Your task to perform on an android device: Find coffee shops on Maps Image 0: 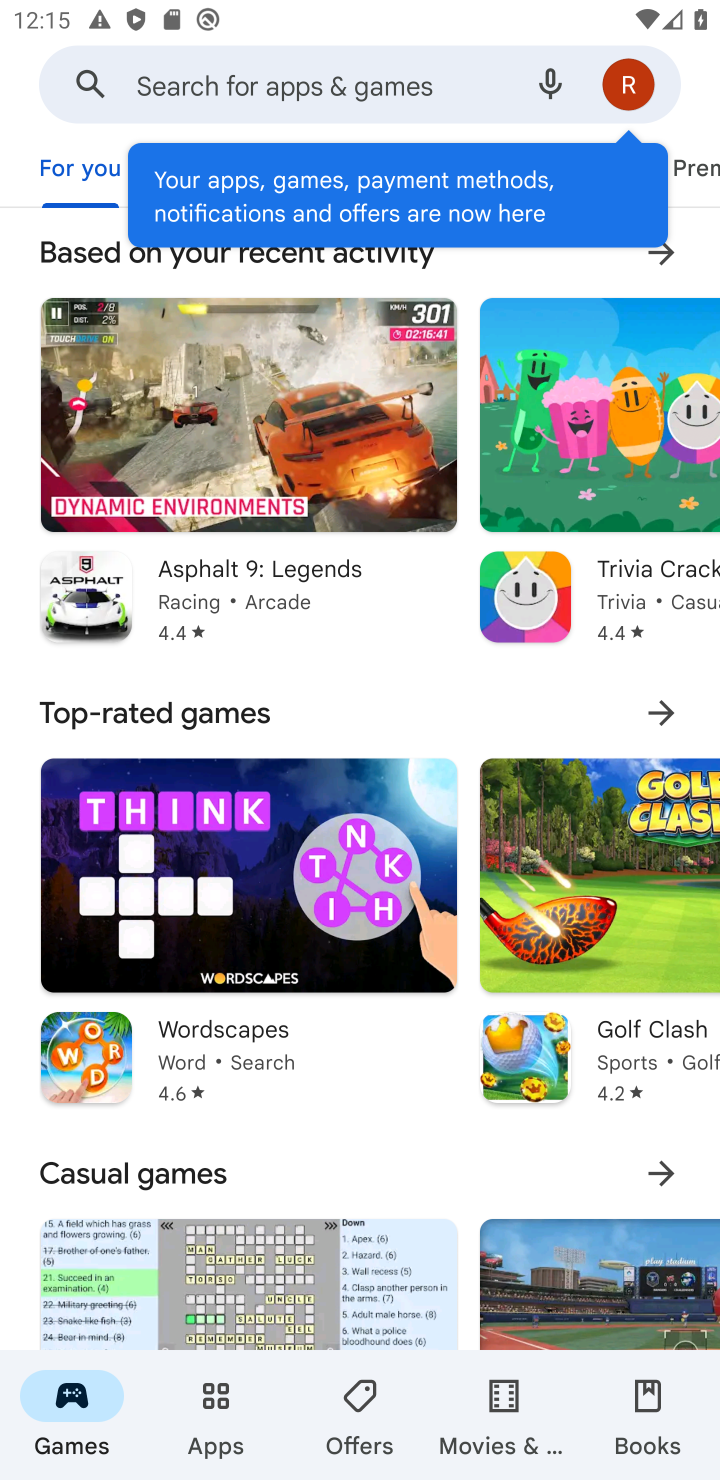
Step 0: press home button
Your task to perform on an android device: Find coffee shops on Maps Image 1: 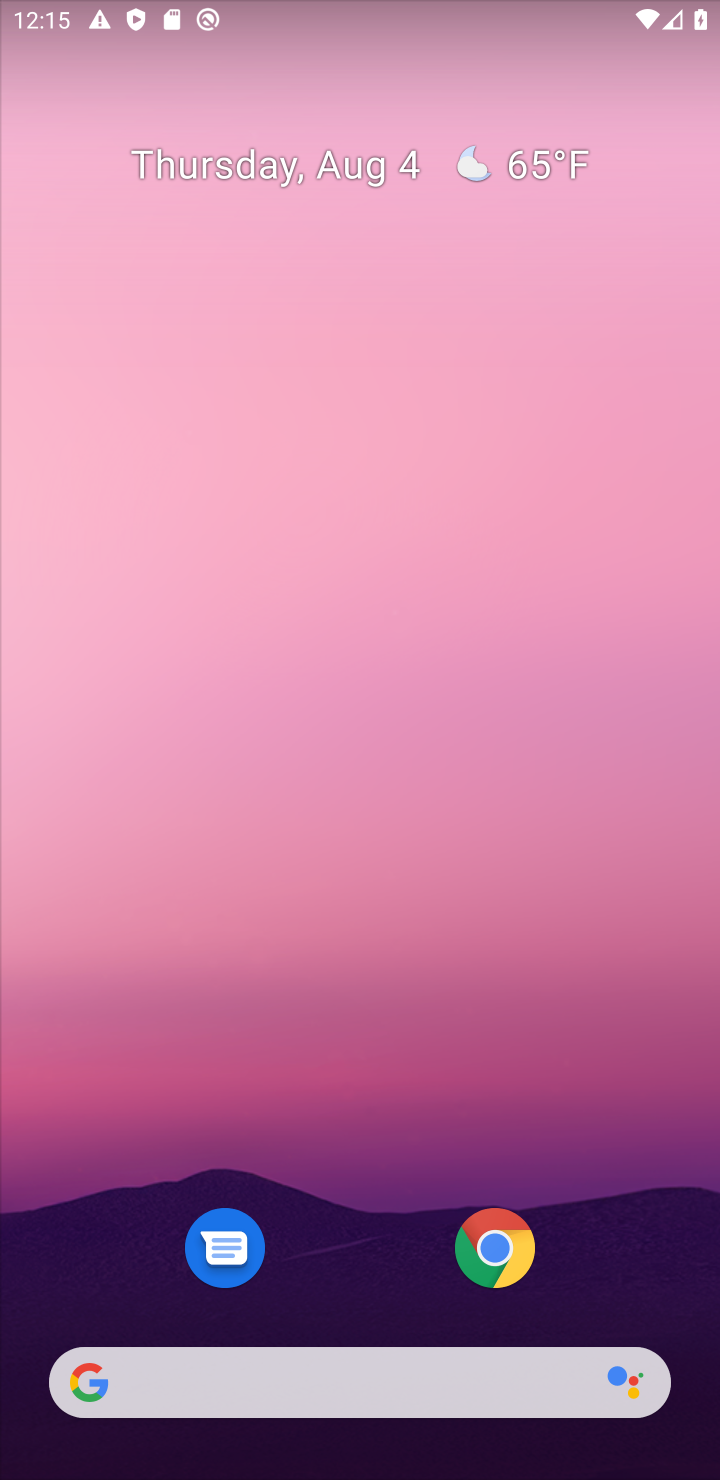
Step 1: drag from (356, 949) to (397, 34)
Your task to perform on an android device: Find coffee shops on Maps Image 2: 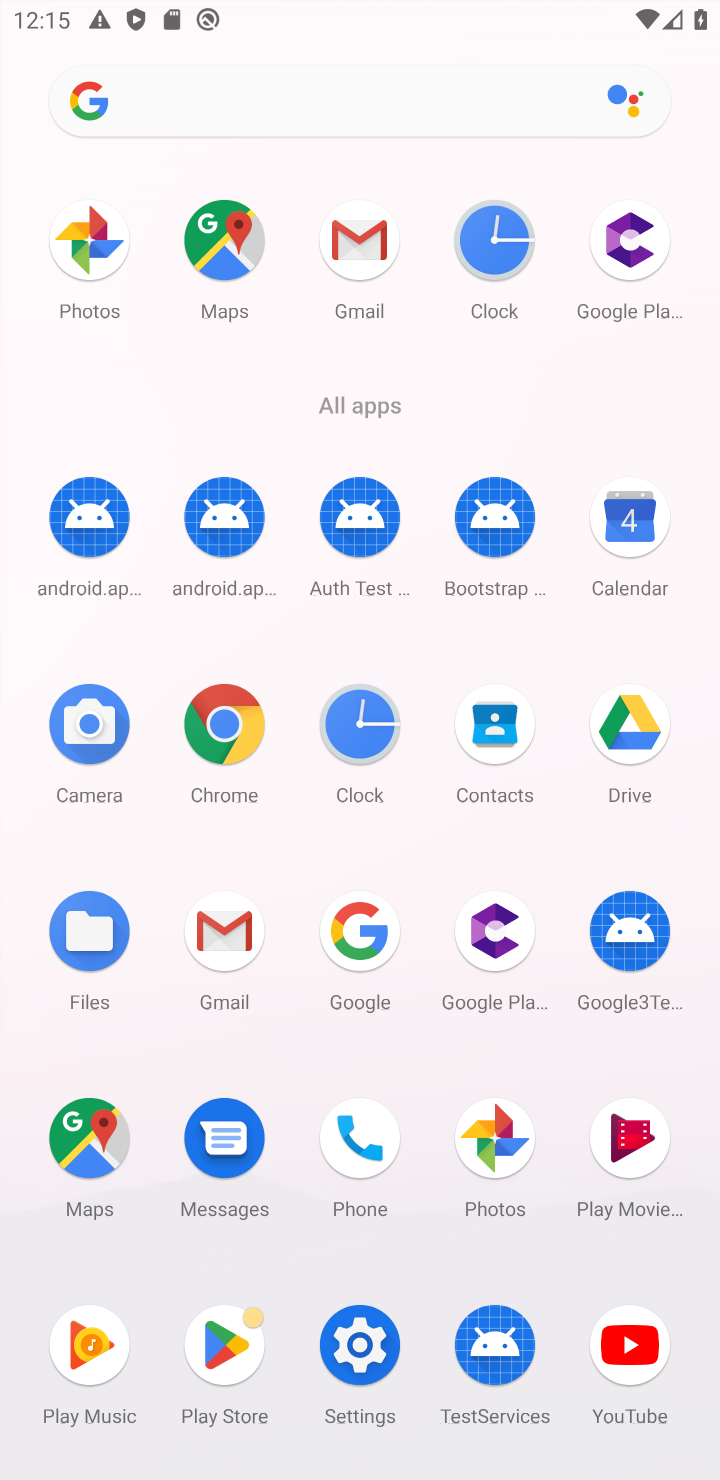
Step 2: click (86, 1130)
Your task to perform on an android device: Find coffee shops on Maps Image 3: 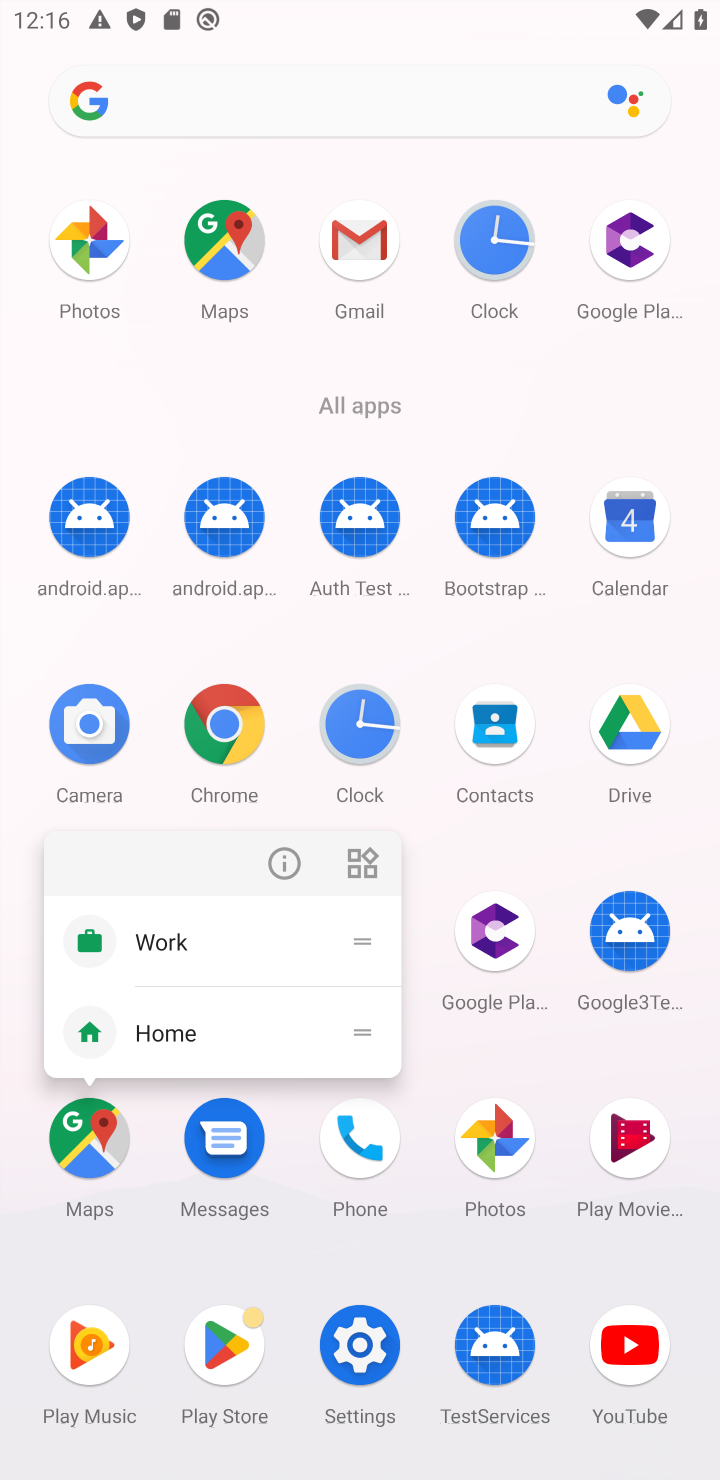
Step 3: click (90, 1135)
Your task to perform on an android device: Find coffee shops on Maps Image 4: 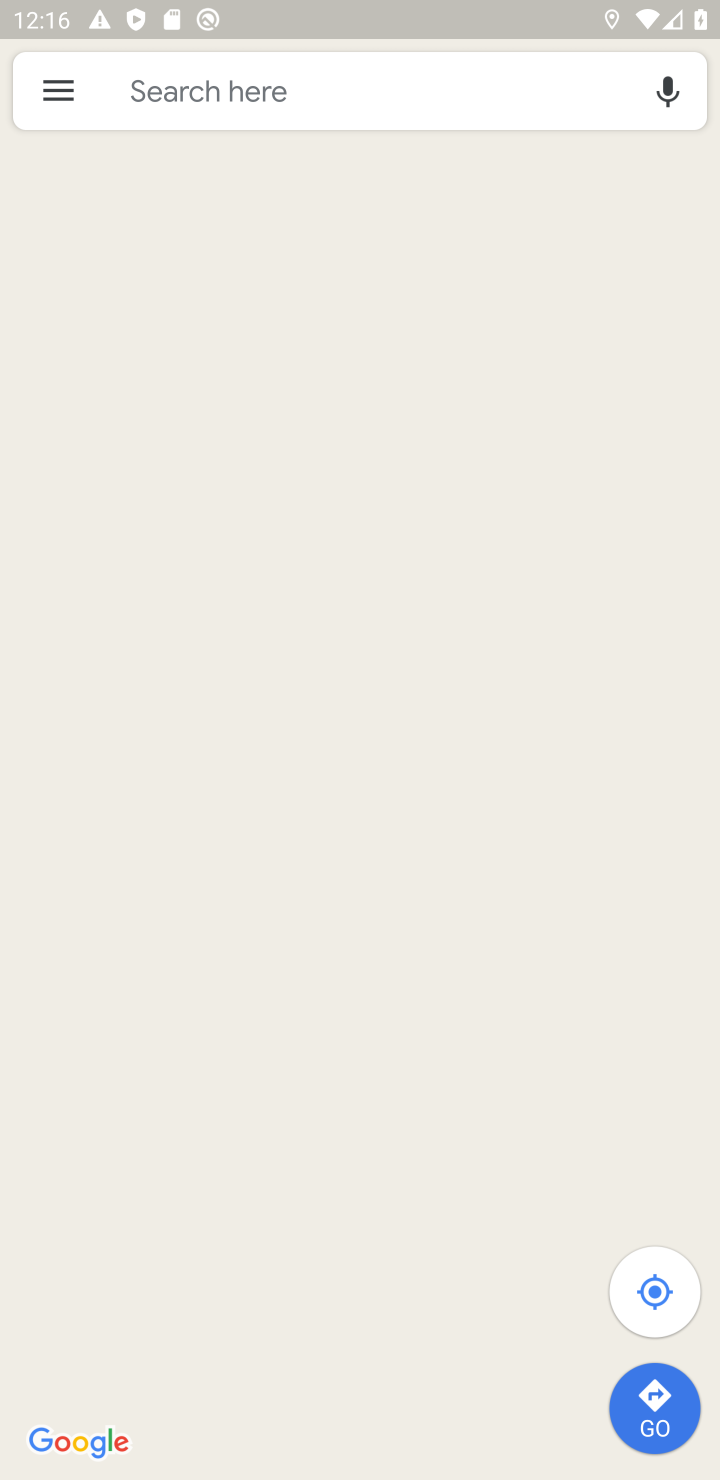
Step 4: click (239, 96)
Your task to perform on an android device: Find coffee shops on Maps Image 5: 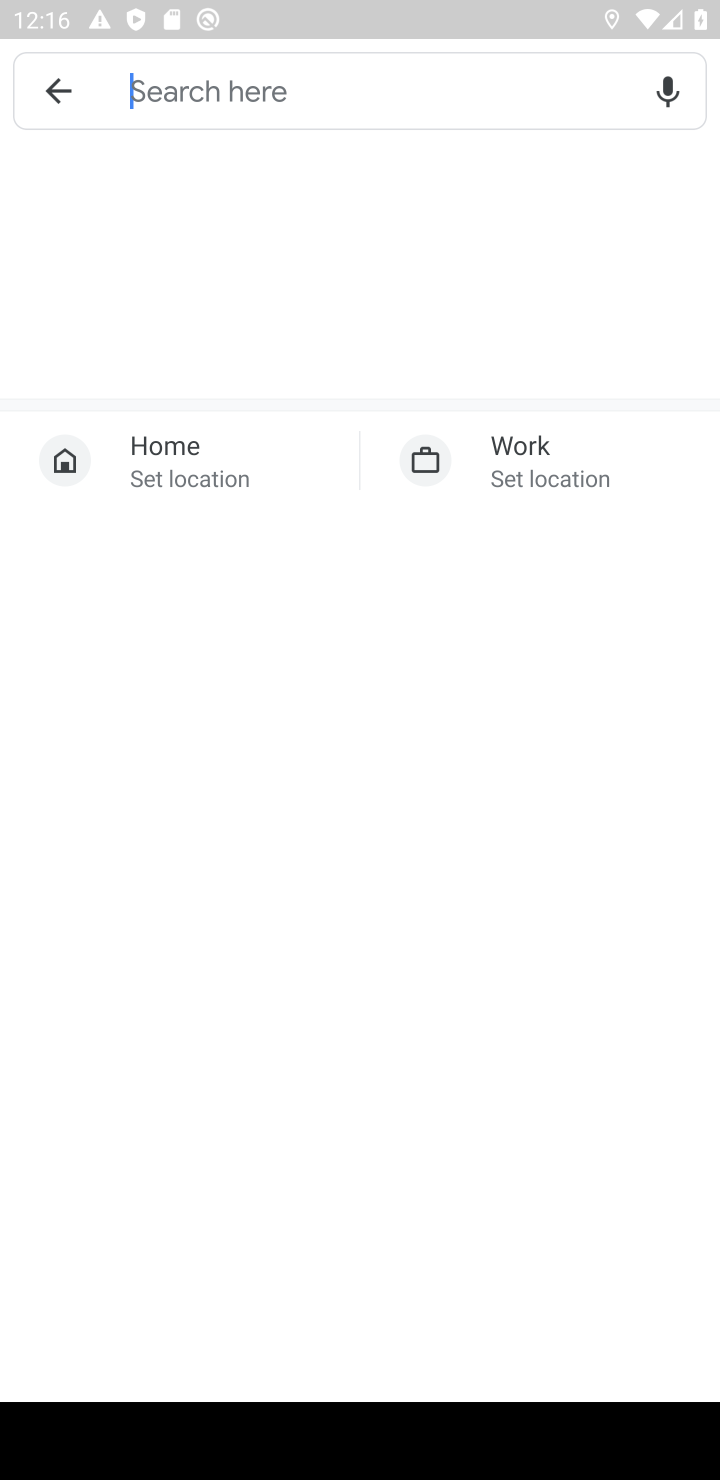
Step 5: type "coffee"
Your task to perform on an android device: Find coffee shops on Maps Image 6: 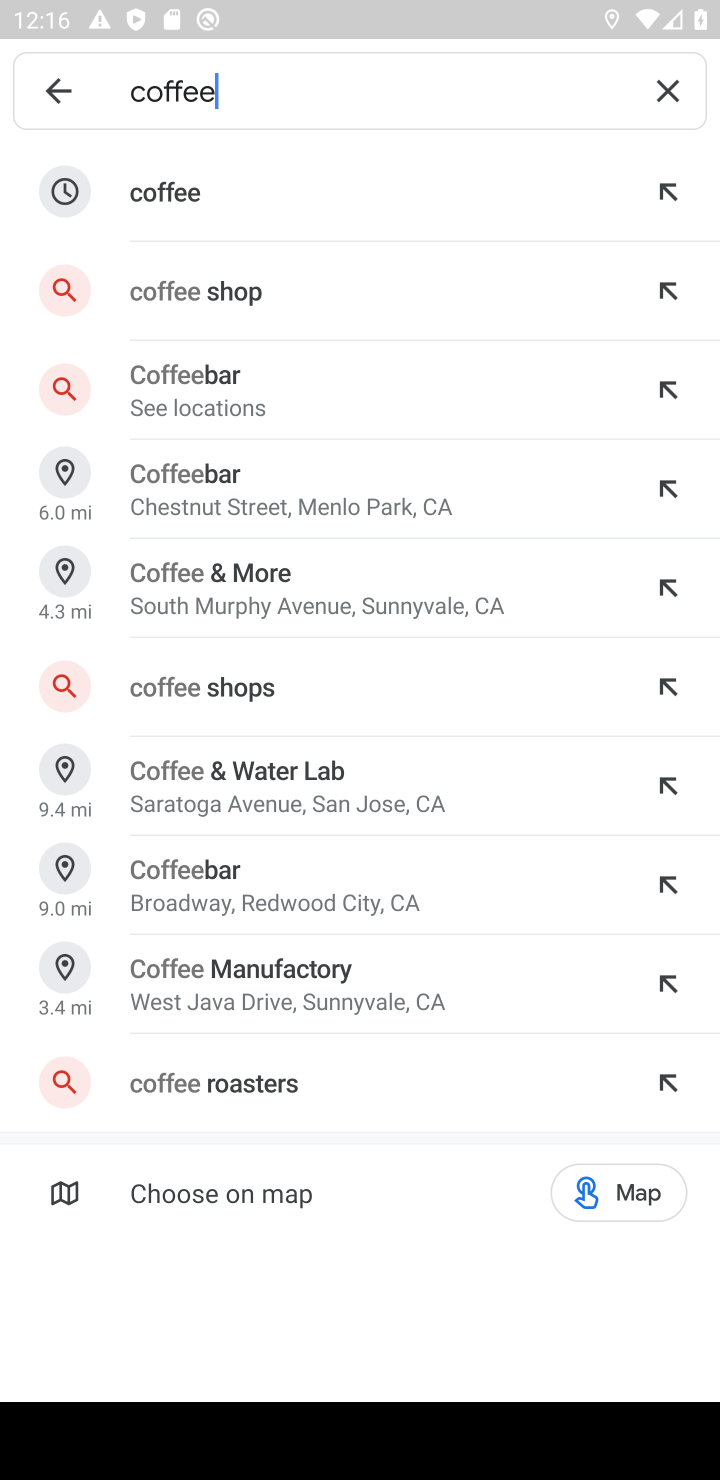
Step 6: click (203, 187)
Your task to perform on an android device: Find coffee shops on Maps Image 7: 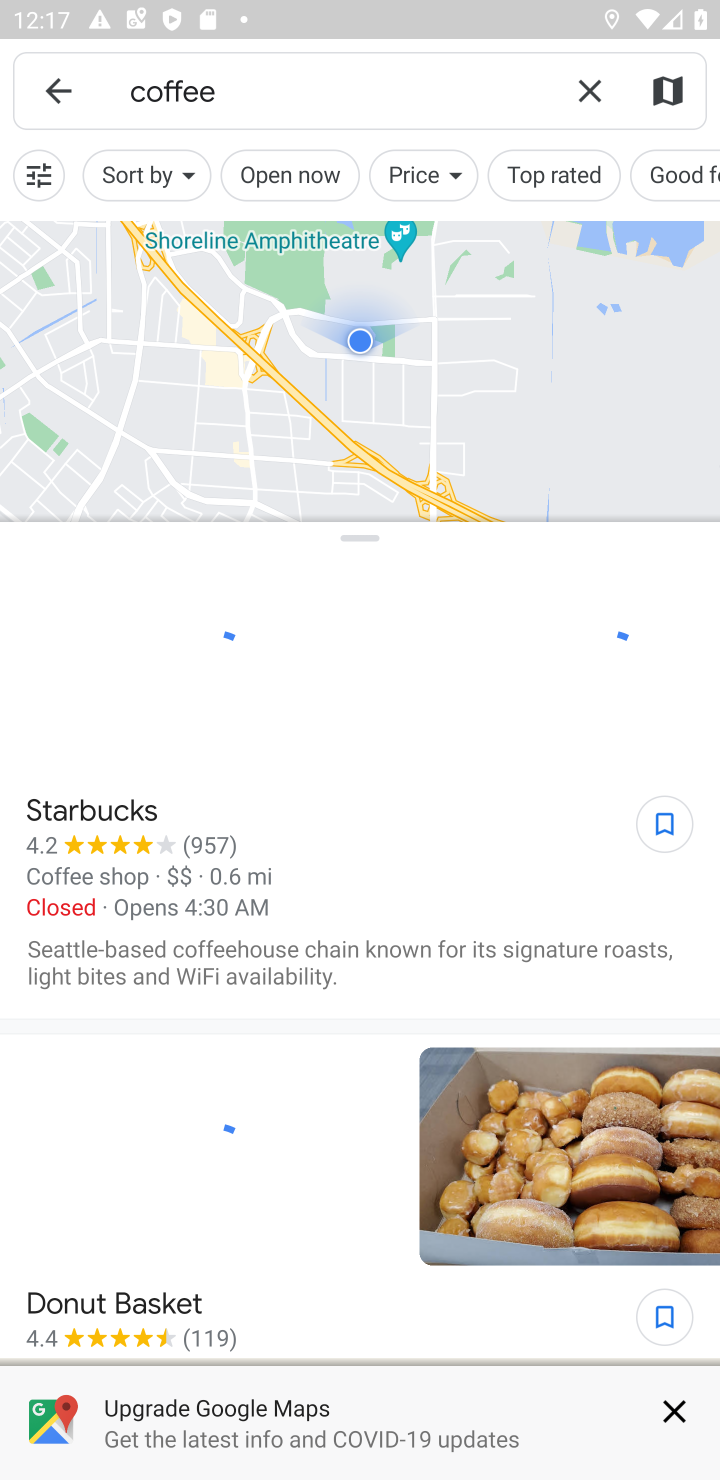
Step 7: task complete